Your task to perform on an android device: check android version Image 0: 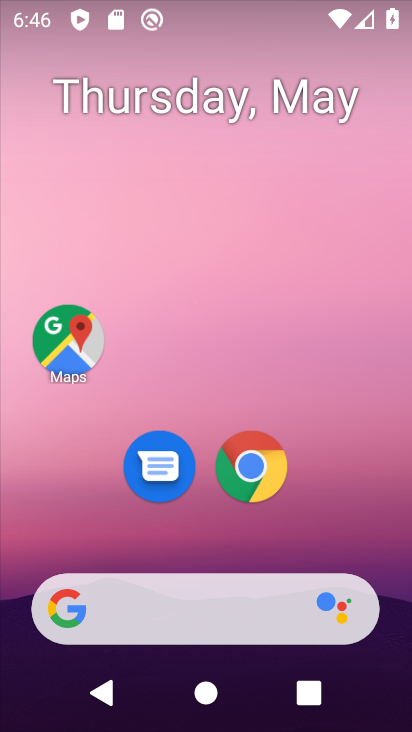
Step 0: drag from (332, 518) to (283, 145)
Your task to perform on an android device: check android version Image 1: 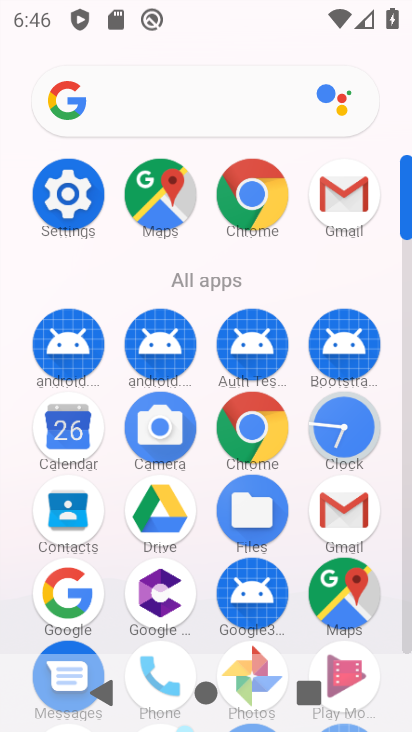
Step 1: click (66, 197)
Your task to perform on an android device: check android version Image 2: 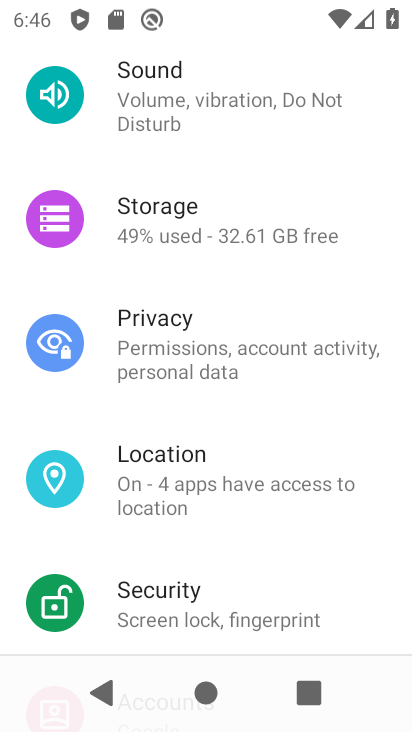
Step 2: drag from (266, 504) to (233, 197)
Your task to perform on an android device: check android version Image 3: 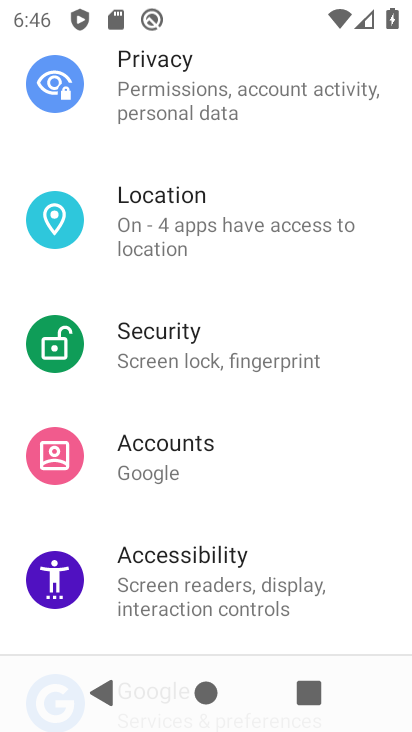
Step 3: drag from (251, 486) to (201, 129)
Your task to perform on an android device: check android version Image 4: 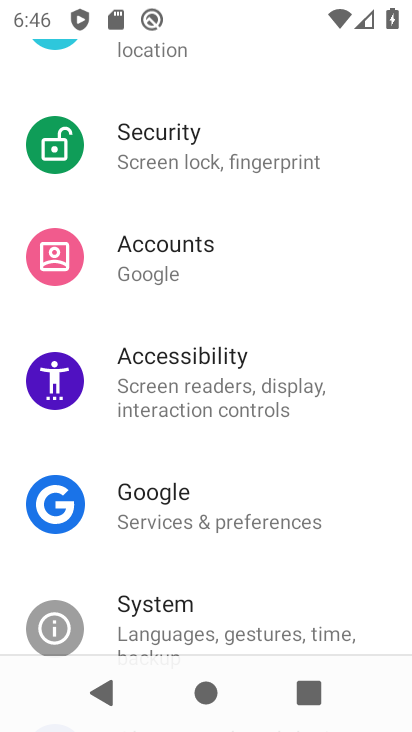
Step 4: drag from (267, 543) to (243, 242)
Your task to perform on an android device: check android version Image 5: 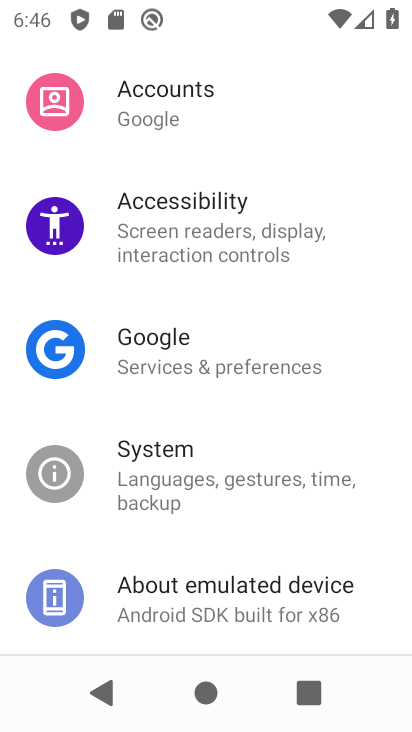
Step 5: drag from (256, 510) to (212, 247)
Your task to perform on an android device: check android version Image 6: 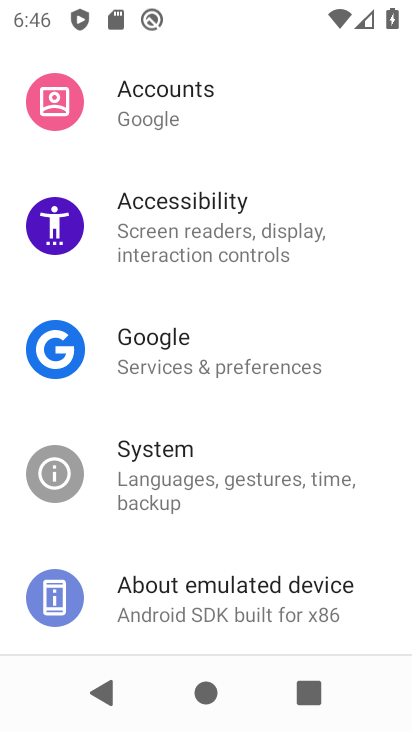
Step 6: click (214, 590)
Your task to perform on an android device: check android version Image 7: 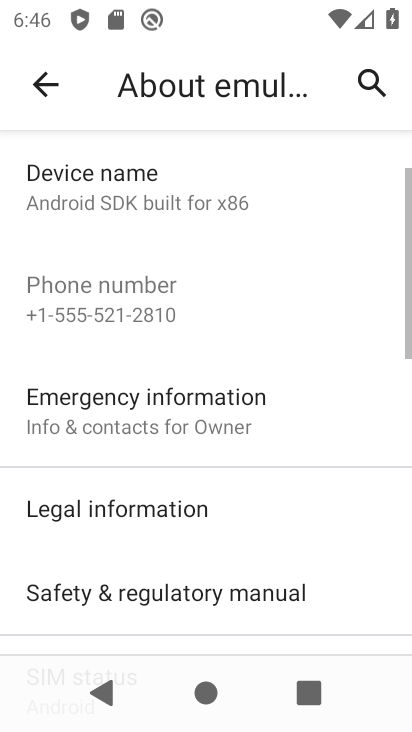
Step 7: task complete